Your task to perform on an android device: toggle notifications settings in the gmail app Image 0: 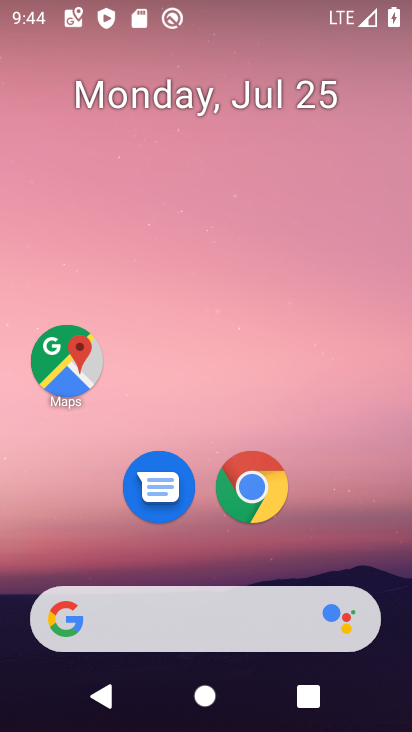
Step 0: drag from (163, 591) to (226, 4)
Your task to perform on an android device: toggle notifications settings in the gmail app Image 1: 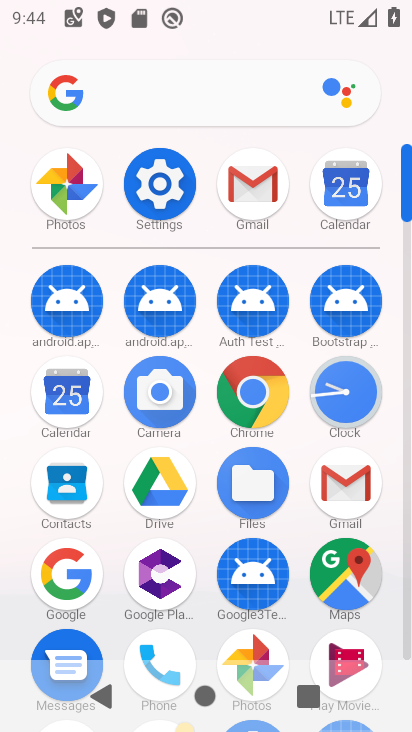
Step 1: click (251, 189)
Your task to perform on an android device: toggle notifications settings in the gmail app Image 2: 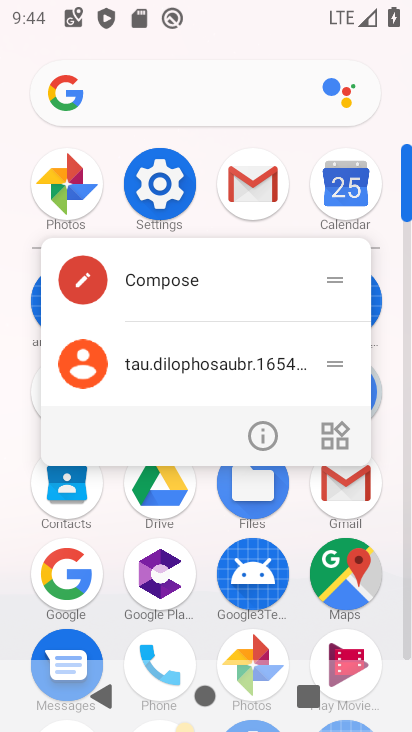
Step 2: click (266, 429)
Your task to perform on an android device: toggle notifications settings in the gmail app Image 3: 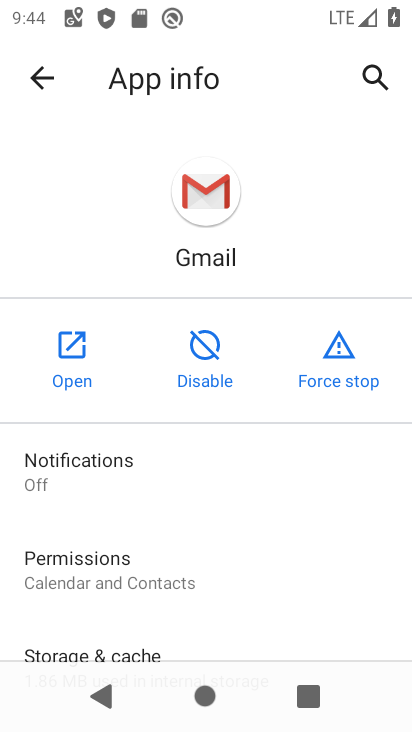
Step 3: click (126, 459)
Your task to perform on an android device: toggle notifications settings in the gmail app Image 4: 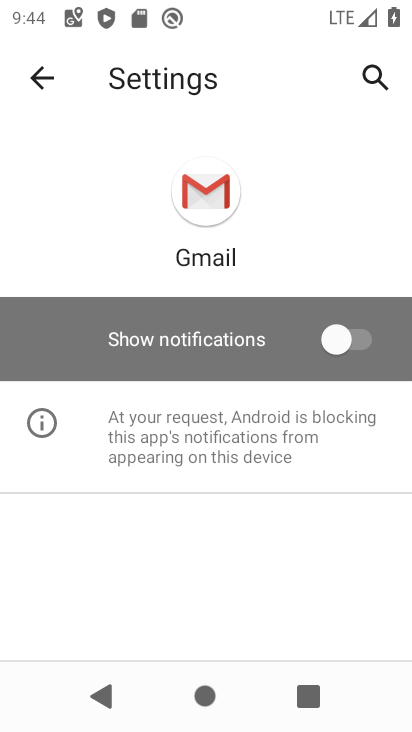
Step 4: click (332, 346)
Your task to perform on an android device: toggle notifications settings in the gmail app Image 5: 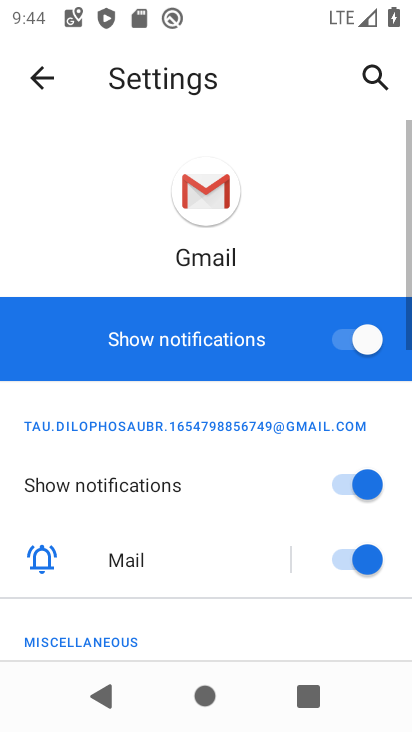
Step 5: task complete